Your task to perform on an android device: Clear all items from cart on target.com. Search for razer nari on target.com, select the first entry, and add it to the cart. Image 0: 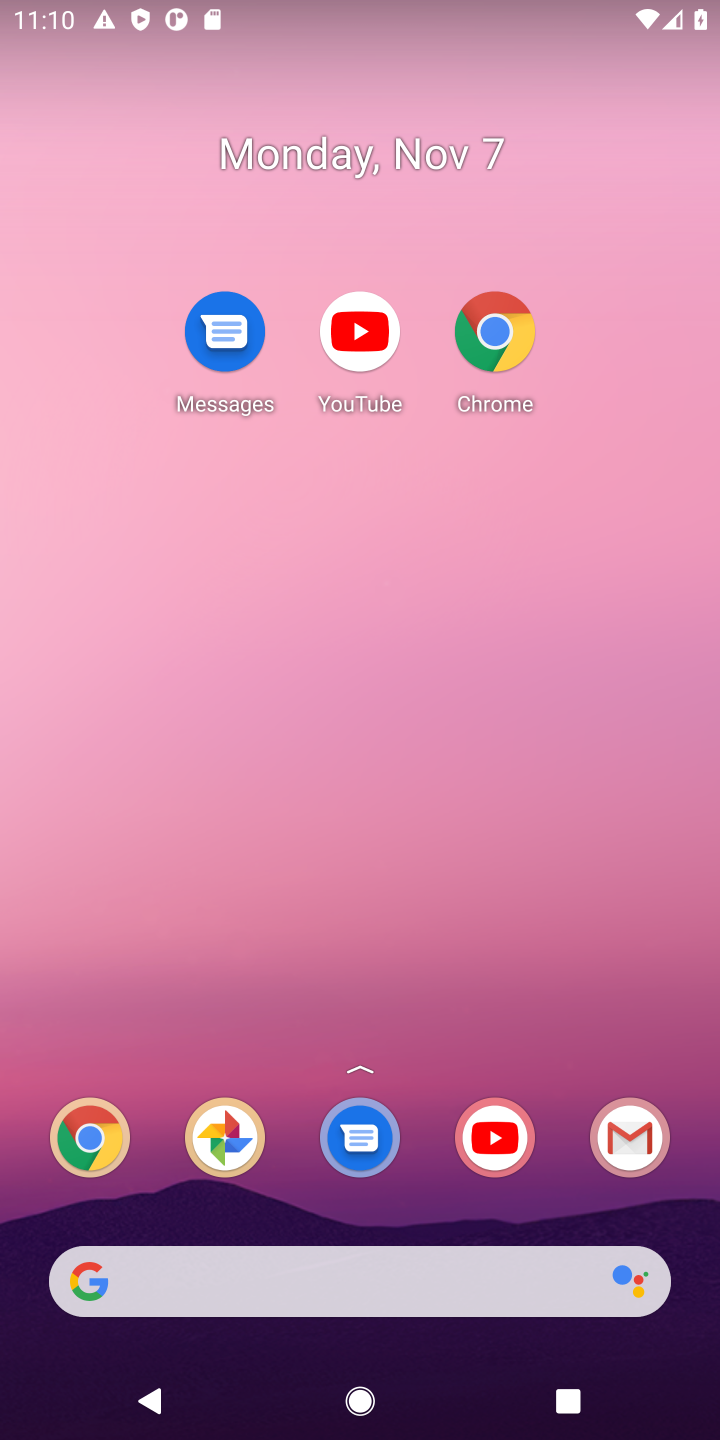
Step 0: drag from (402, 1214) to (341, 191)
Your task to perform on an android device: Clear all items from cart on target.com. Search for razer nari on target.com, select the first entry, and add it to the cart. Image 1: 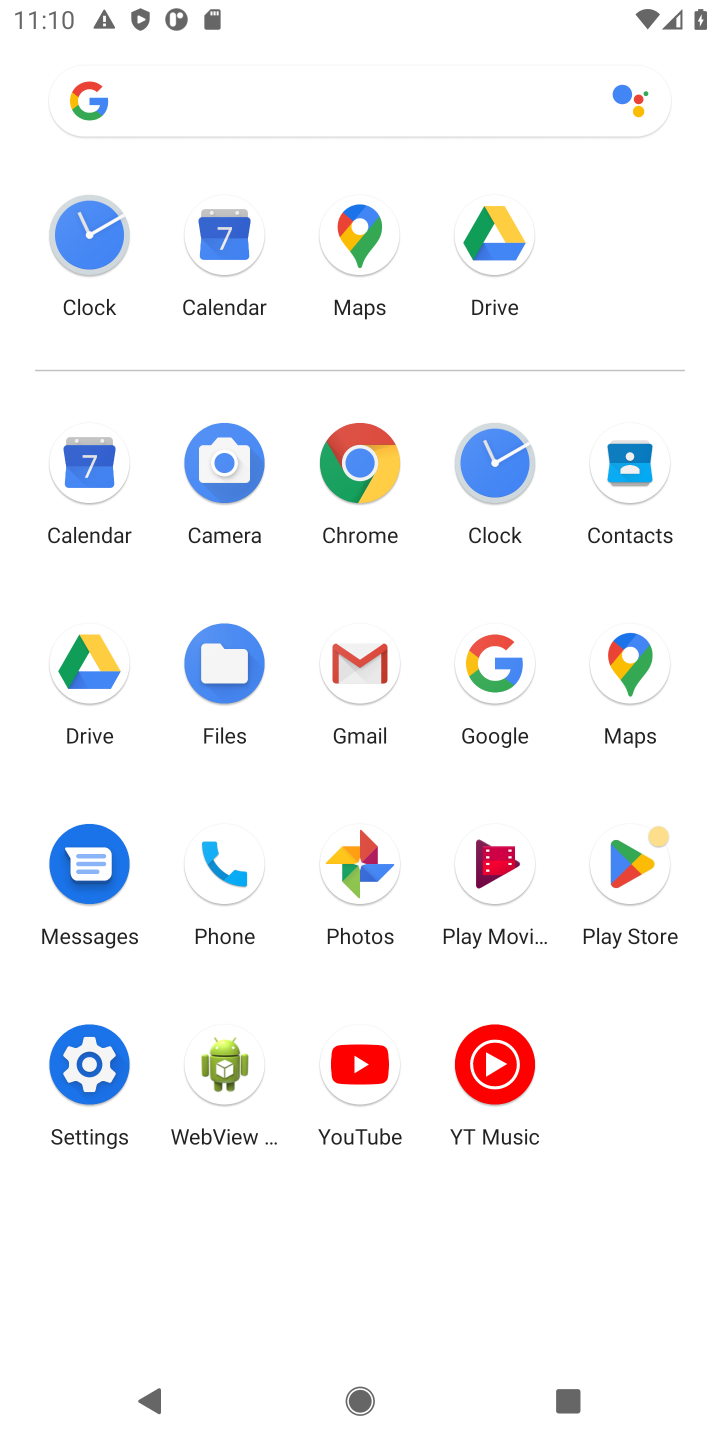
Step 1: click (346, 464)
Your task to perform on an android device: Clear all items from cart on target.com. Search for razer nari on target.com, select the first entry, and add it to the cart. Image 2: 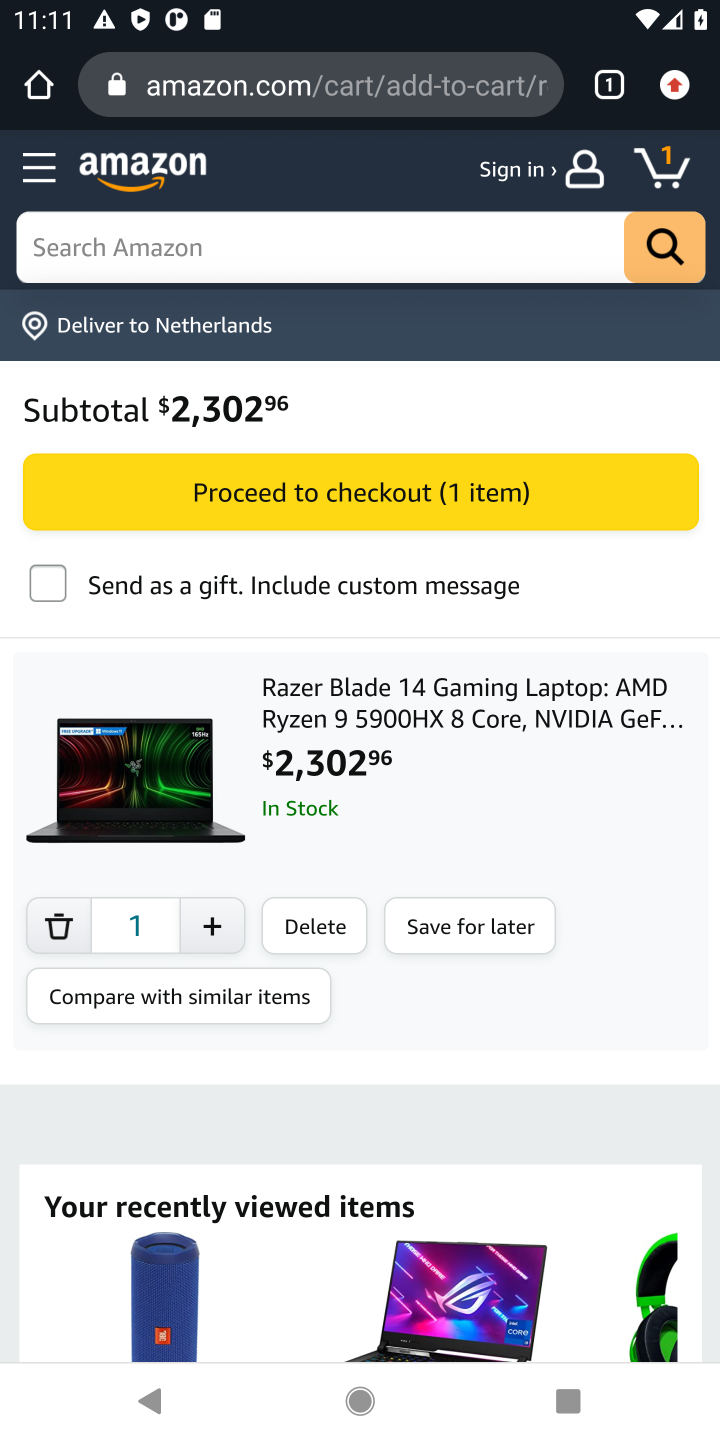
Step 2: click (450, 78)
Your task to perform on an android device: Clear all items from cart on target.com. Search for razer nari on target.com, select the first entry, and add it to the cart. Image 3: 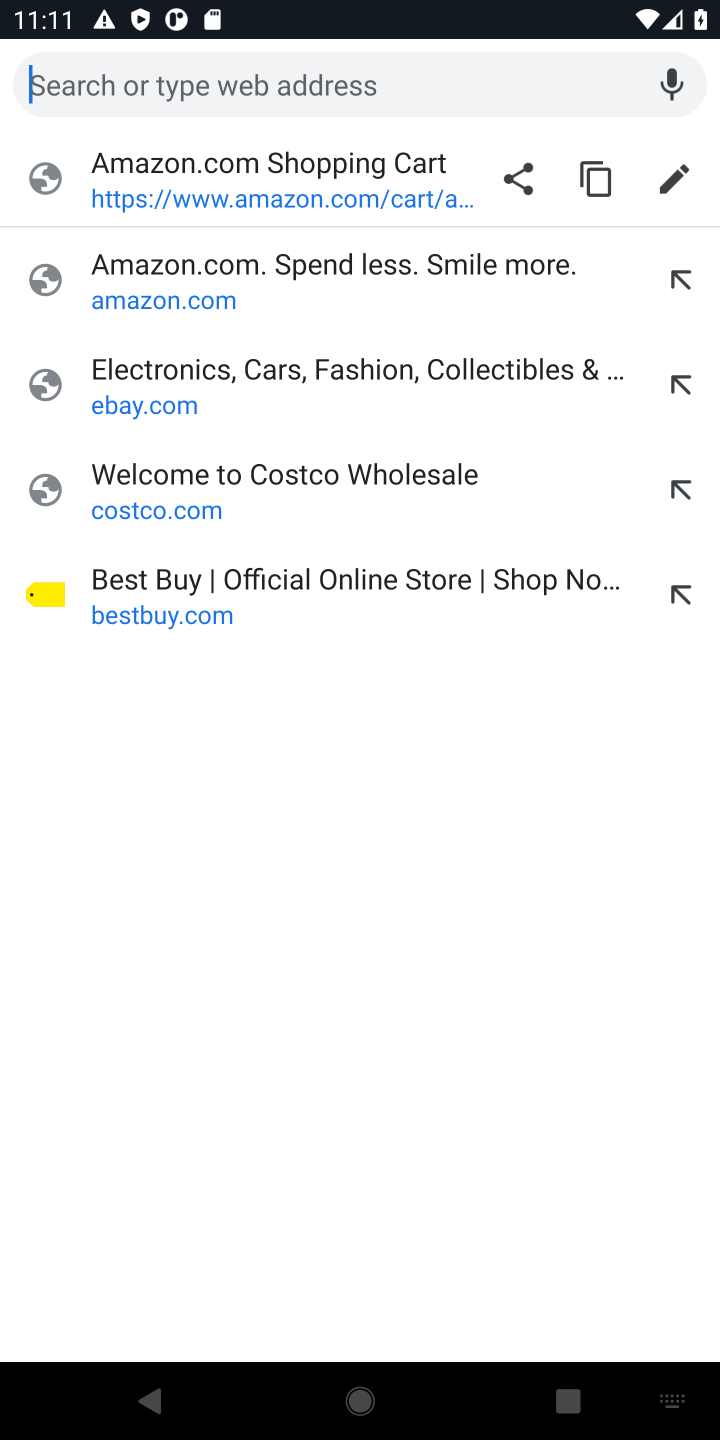
Step 3: type "target.com"
Your task to perform on an android device: Clear all items from cart on target.com. Search for razer nari on target.com, select the first entry, and add it to the cart. Image 4: 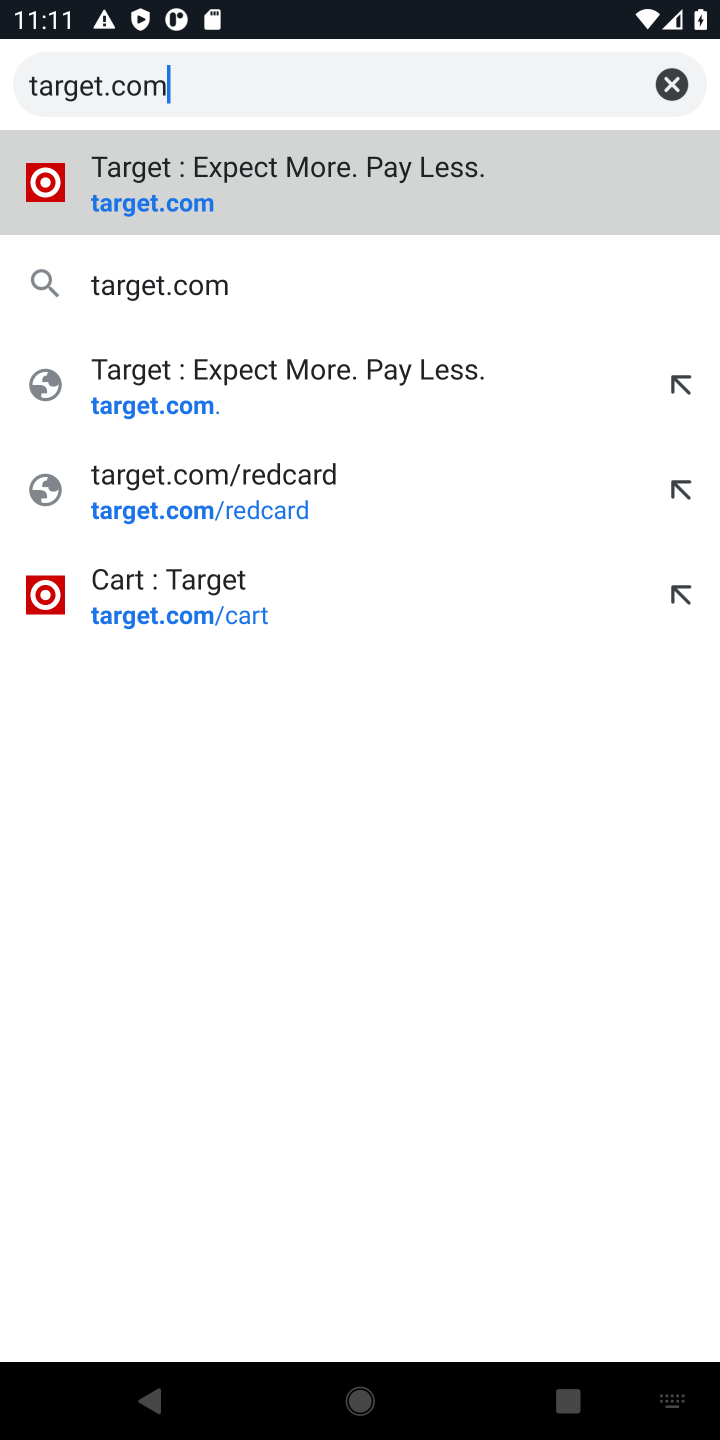
Step 4: press enter
Your task to perform on an android device: Clear all items from cart on target.com. Search for razer nari on target.com, select the first entry, and add it to the cart. Image 5: 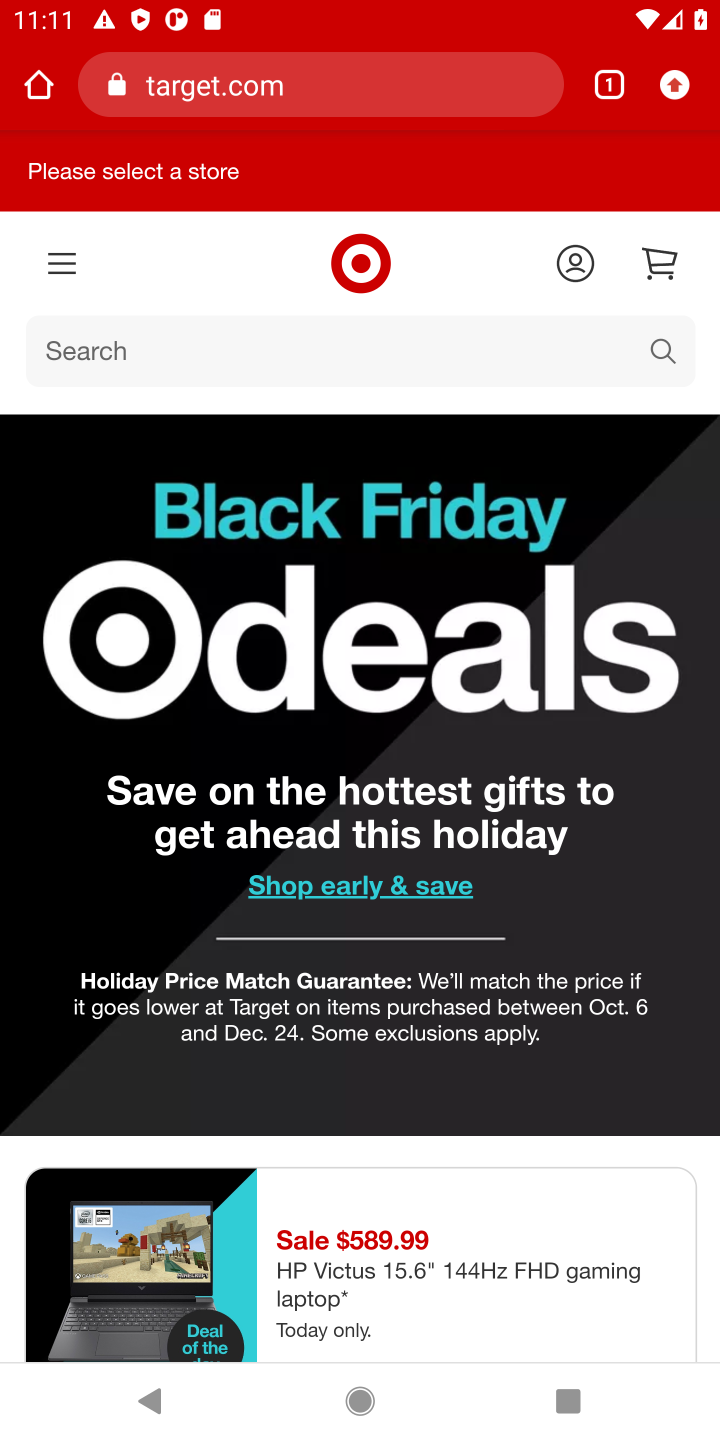
Step 5: click (675, 269)
Your task to perform on an android device: Clear all items from cart on target.com. Search for razer nari on target.com, select the first entry, and add it to the cart. Image 6: 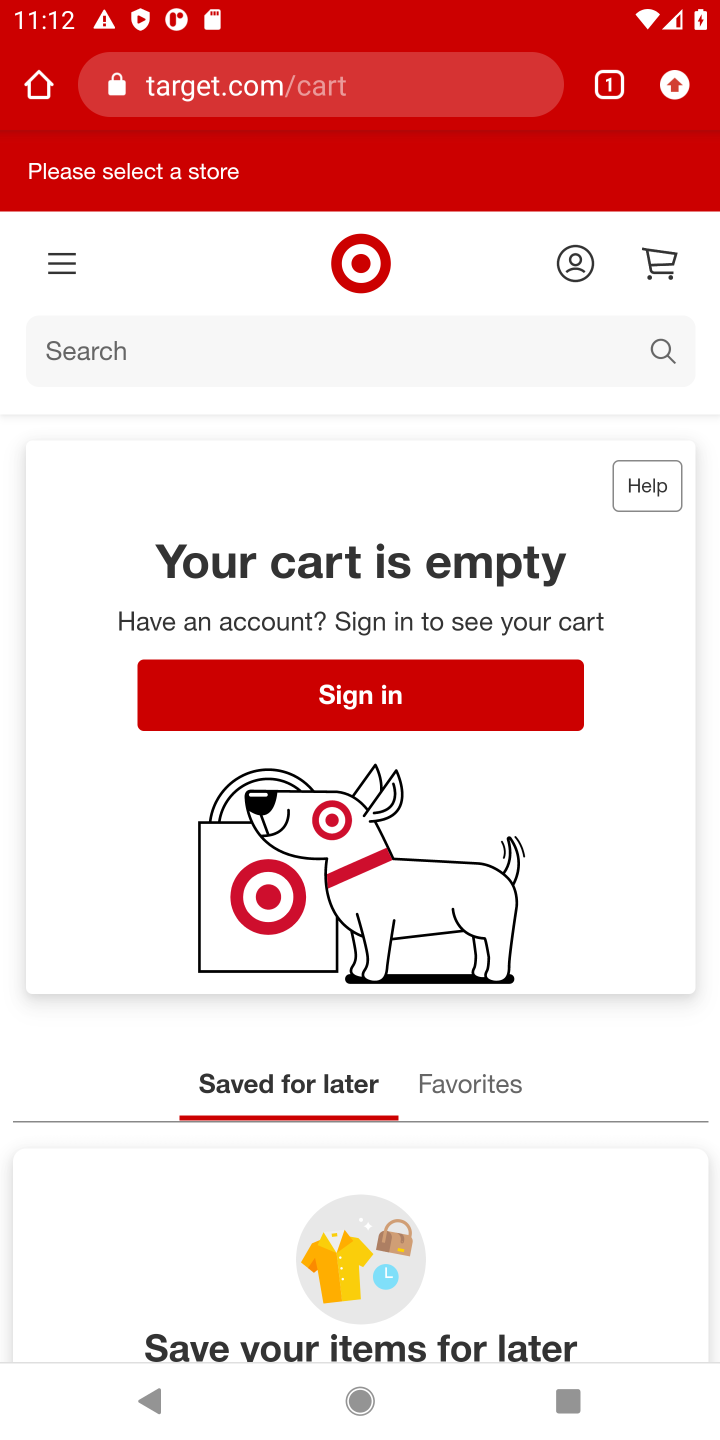
Step 6: click (390, 369)
Your task to perform on an android device: Clear all items from cart on target.com. Search for razer nari on target.com, select the first entry, and add it to the cart. Image 7: 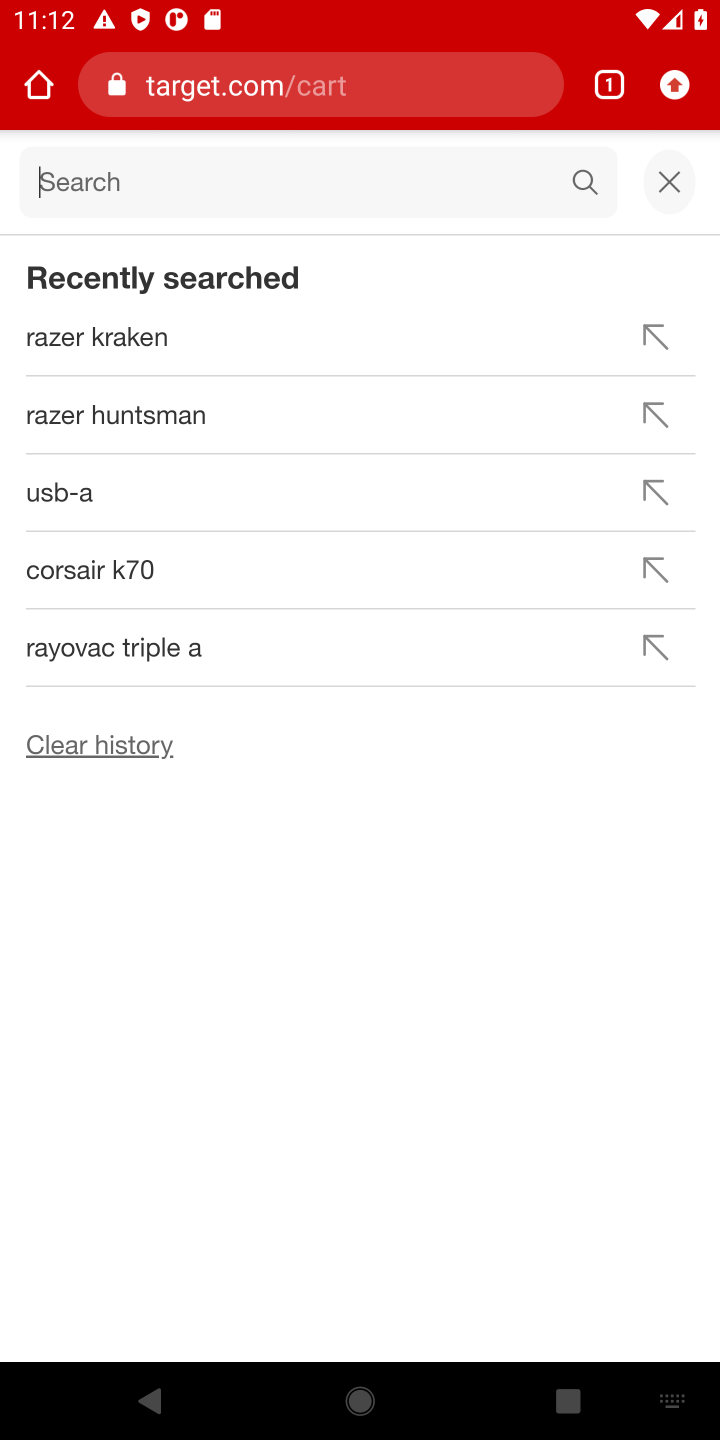
Step 7: type "razer nari"
Your task to perform on an android device: Clear all items from cart on target.com. Search for razer nari on target.com, select the first entry, and add it to the cart. Image 8: 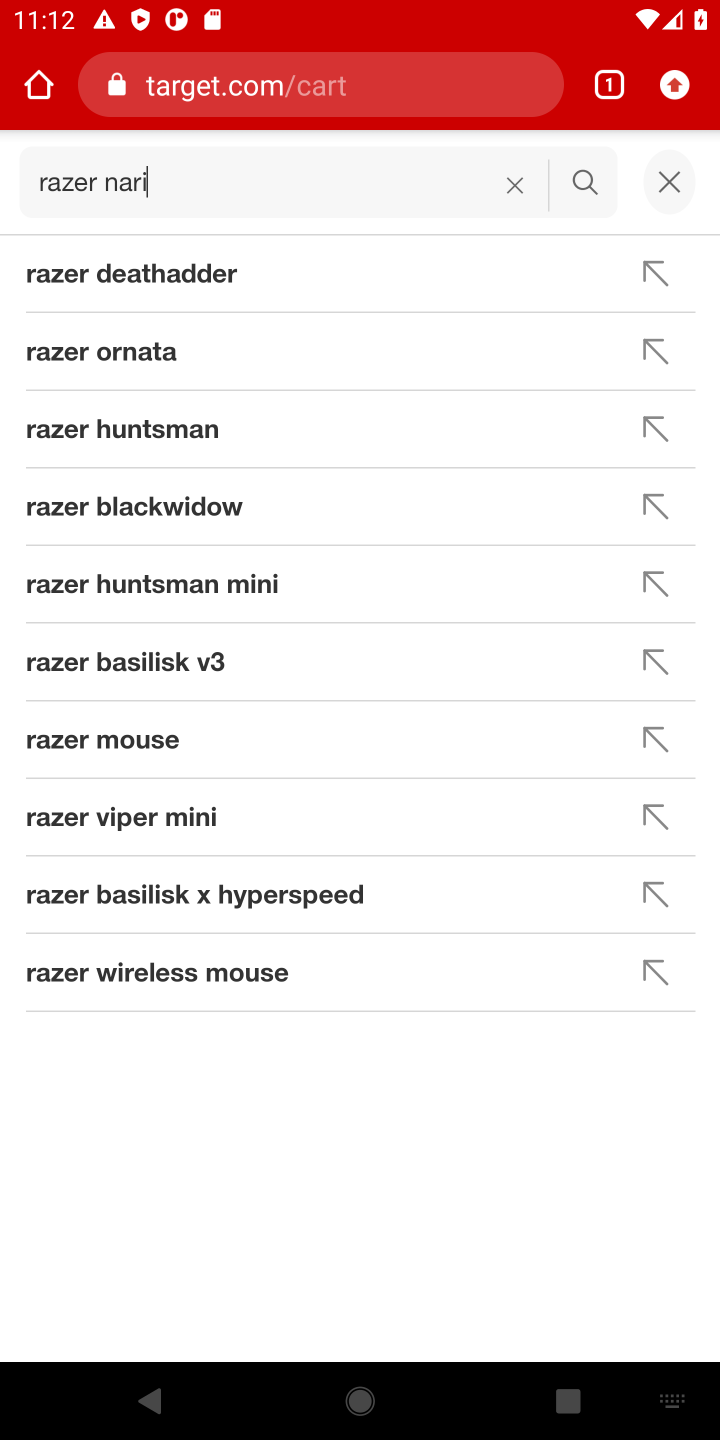
Step 8: press enter
Your task to perform on an android device: Clear all items from cart on target.com. Search for razer nari on target.com, select the first entry, and add it to the cart. Image 9: 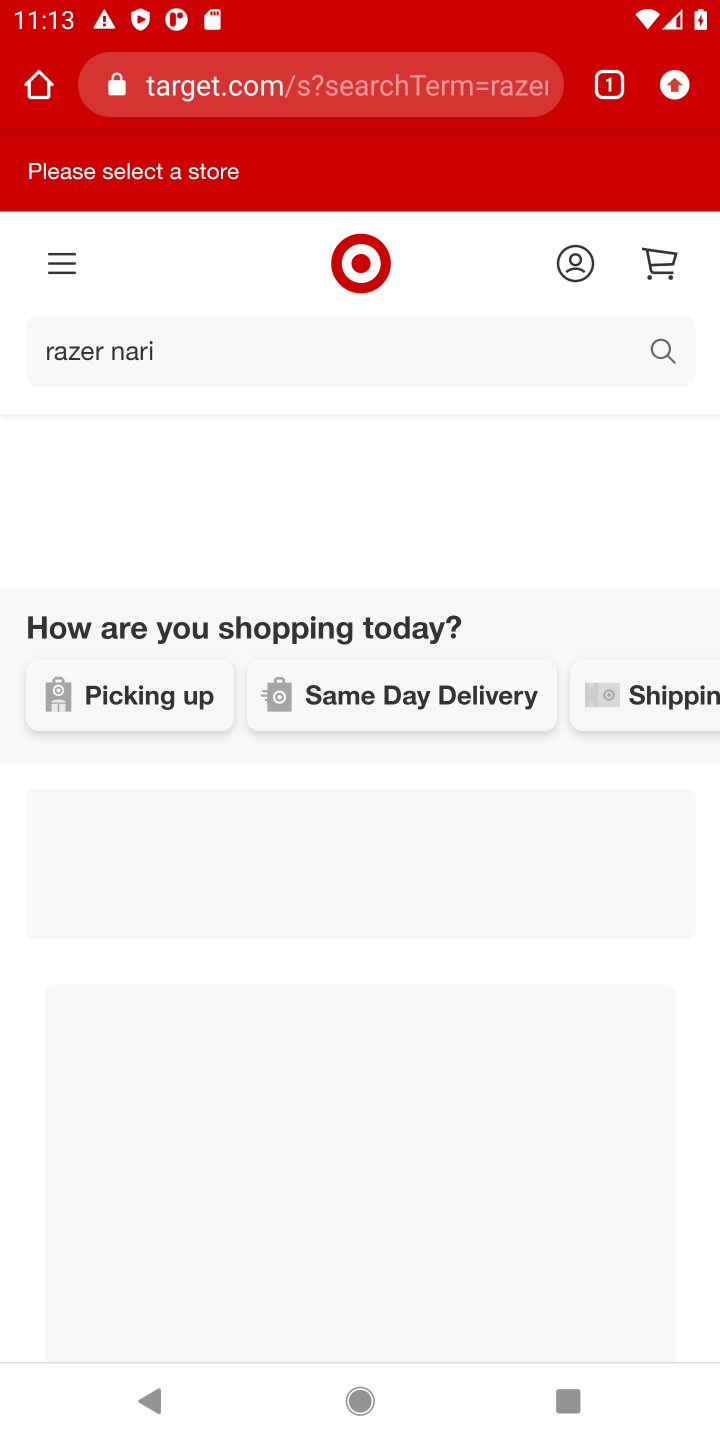
Step 9: press enter
Your task to perform on an android device: Clear all items from cart on target.com. Search for razer nari on target.com, select the first entry, and add it to the cart. Image 10: 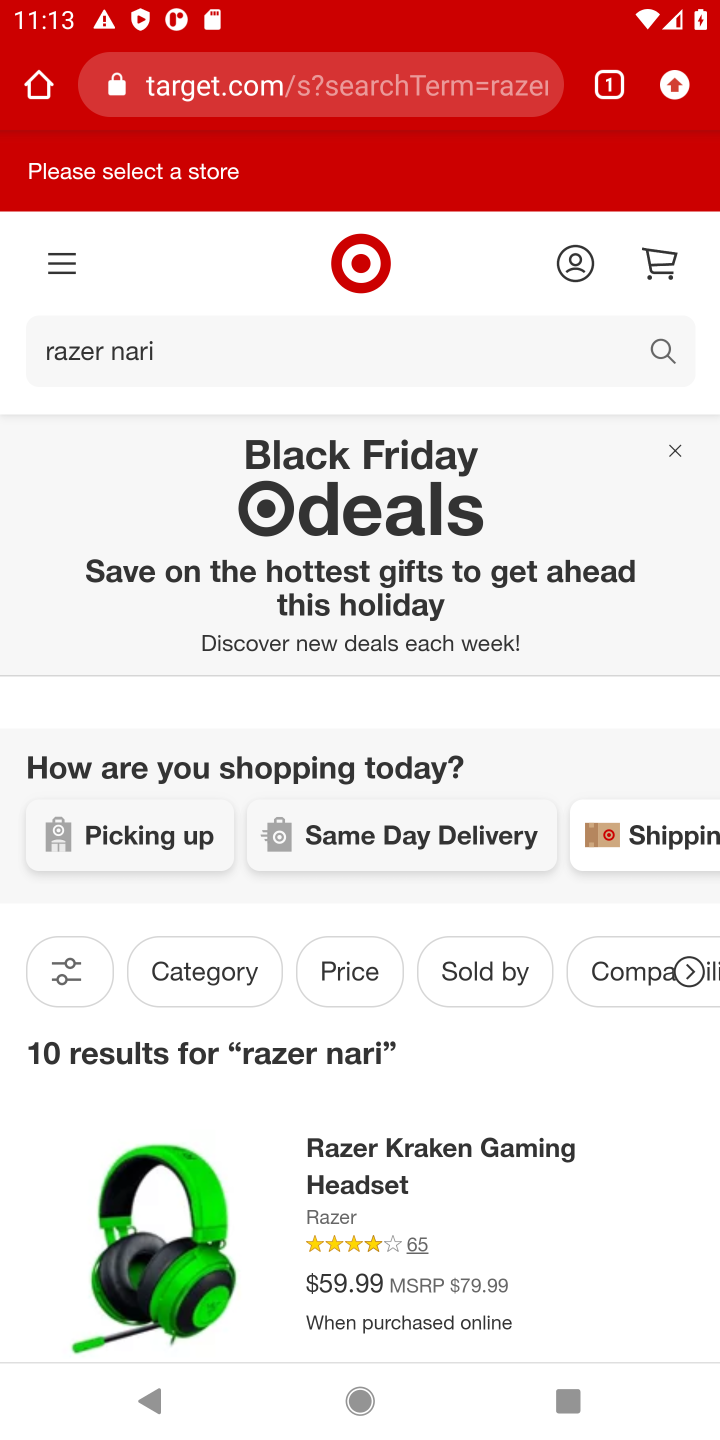
Step 10: task complete